Your task to perform on an android device: turn off translation in the chrome app Image 0: 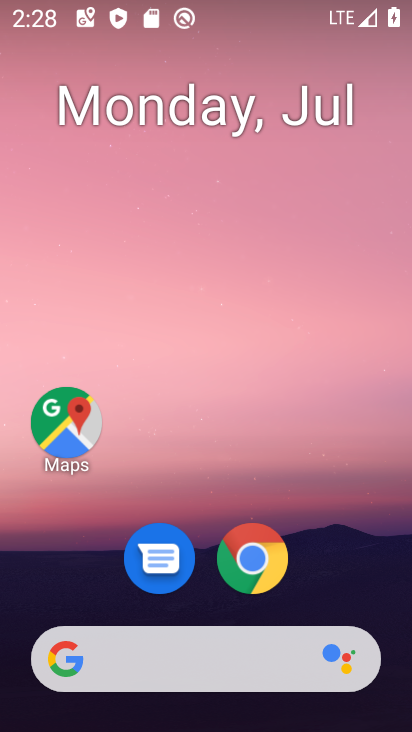
Step 0: press home button
Your task to perform on an android device: turn off translation in the chrome app Image 1: 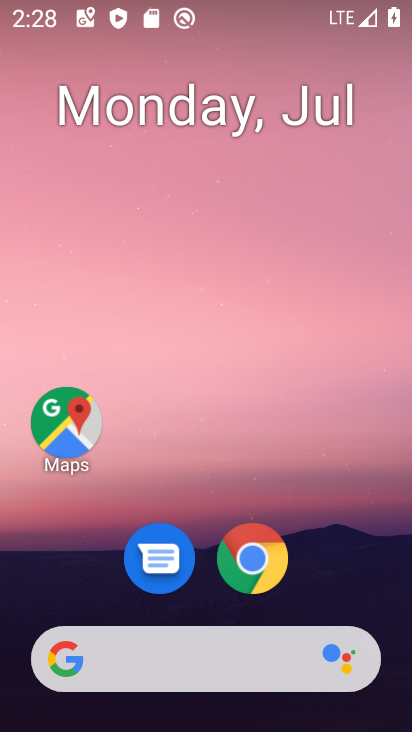
Step 1: drag from (352, 529) to (325, 98)
Your task to perform on an android device: turn off translation in the chrome app Image 2: 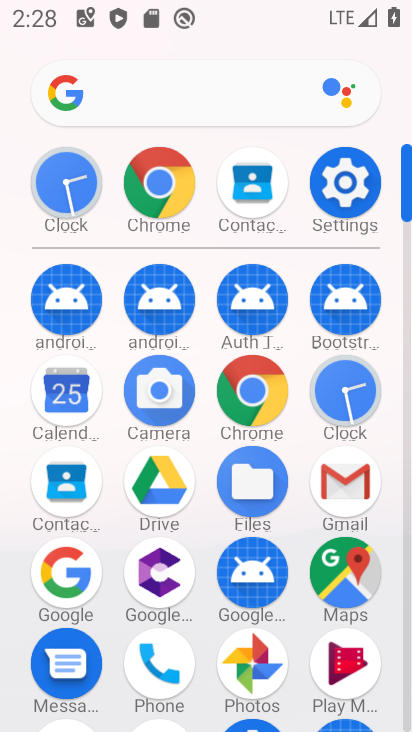
Step 2: click (257, 394)
Your task to perform on an android device: turn off translation in the chrome app Image 3: 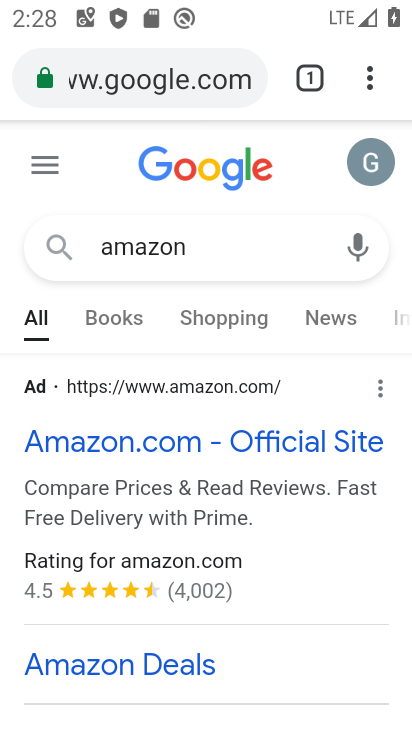
Step 3: click (369, 83)
Your task to perform on an android device: turn off translation in the chrome app Image 4: 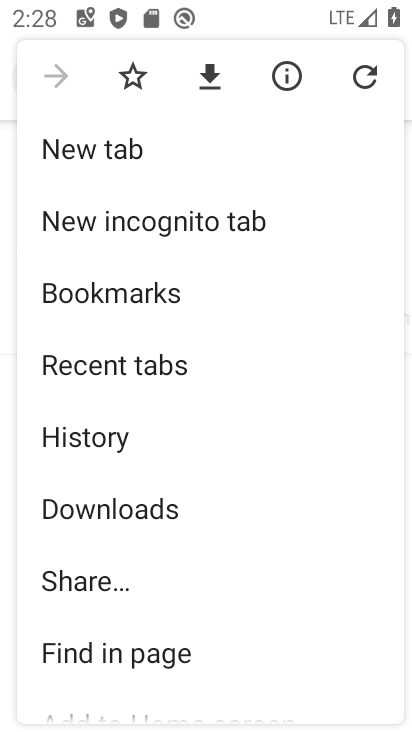
Step 4: drag from (300, 424) to (301, 348)
Your task to perform on an android device: turn off translation in the chrome app Image 5: 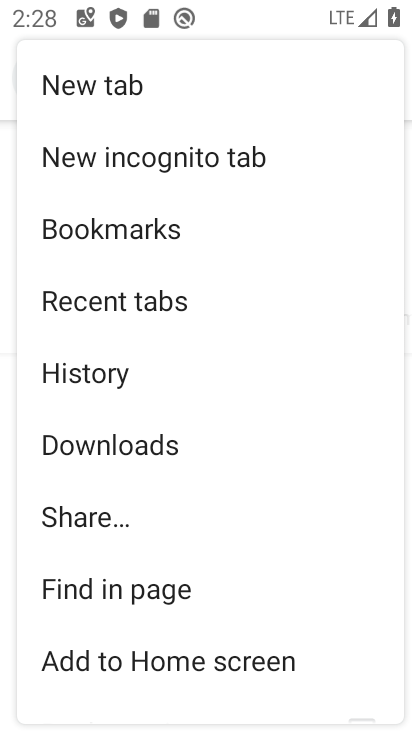
Step 5: drag from (268, 495) to (265, 306)
Your task to perform on an android device: turn off translation in the chrome app Image 6: 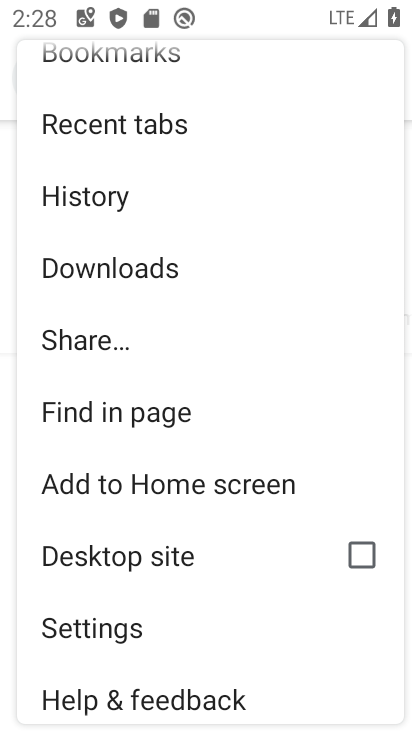
Step 6: drag from (252, 583) to (266, 403)
Your task to perform on an android device: turn off translation in the chrome app Image 7: 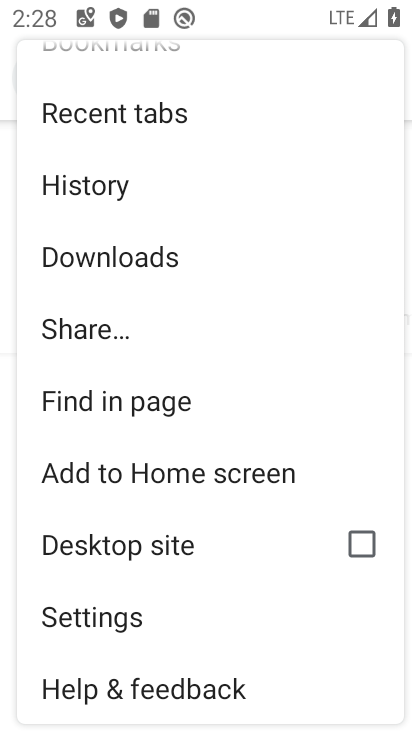
Step 7: click (206, 611)
Your task to perform on an android device: turn off translation in the chrome app Image 8: 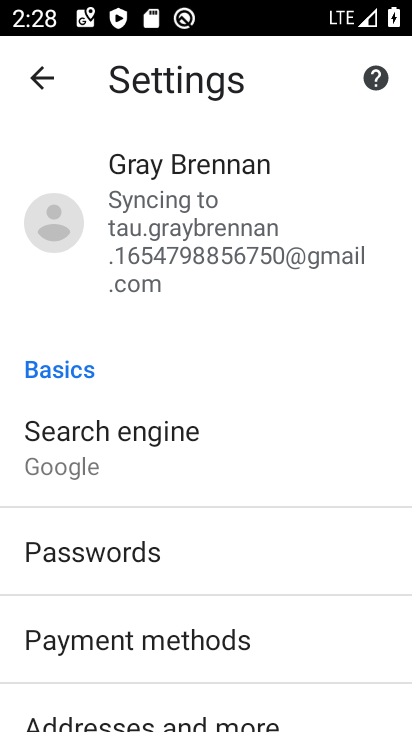
Step 8: drag from (330, 618) to (339, 453)
Your task to perform on an android device: turn off translation in the chrome app Image 9: 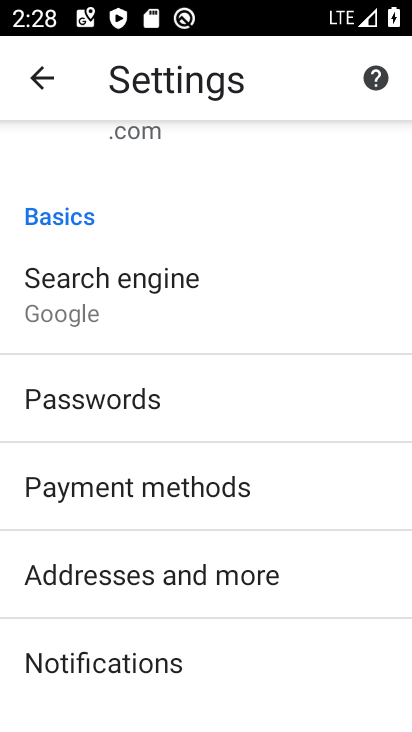
Step 9: drag from (324, 615) to (327, 490)
Your task to perform on an android device: turn off translation in the chrome app Image 10: 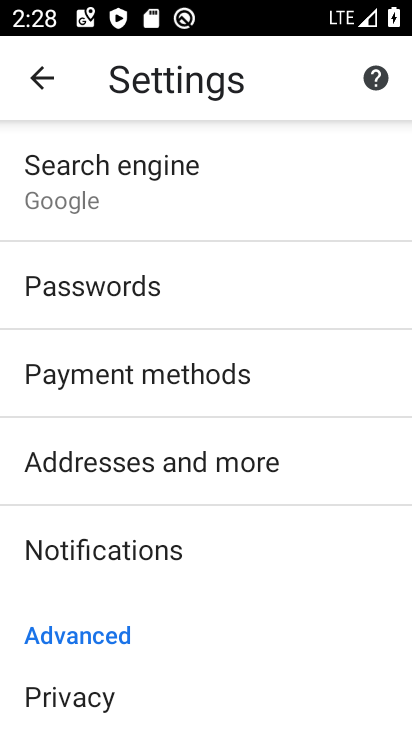
Step 10: drag from (313, 607) to (306, 460)
Your task to perform on an android device: turn off translation in the chrome app Image 11: 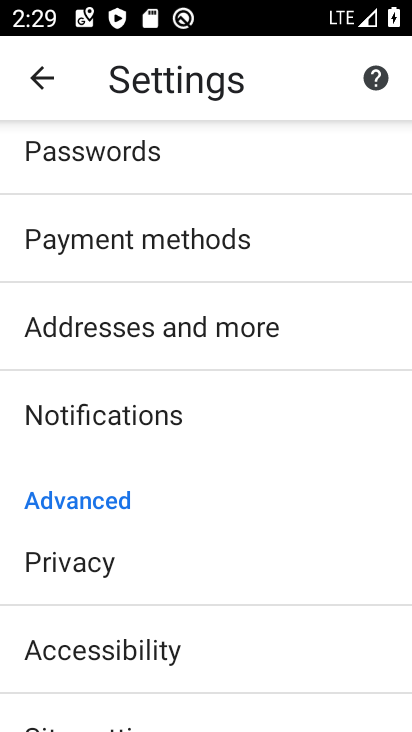
Step 11: drag from (302, 561) to (298, 408)
Your task to perform on an android device: turn off translation in the chrome app Image 12: 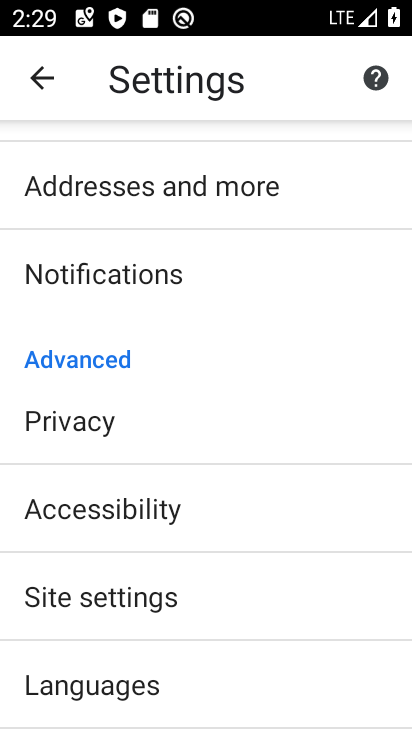
Step 12: drag from (277, 532) to (267, 372)
Your task to perform on an android device: turn off translation in the chrome app Image 13: 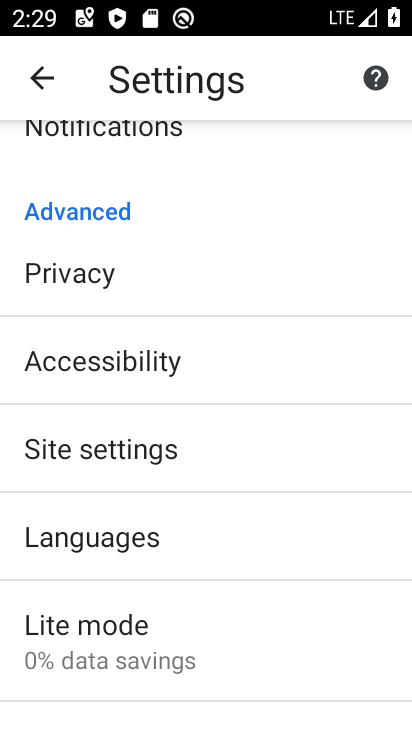
Step 13: drag from (279, 571) to (281, 388)
Your task to perform on an android device: turn off translation in the chrome app Image 14: 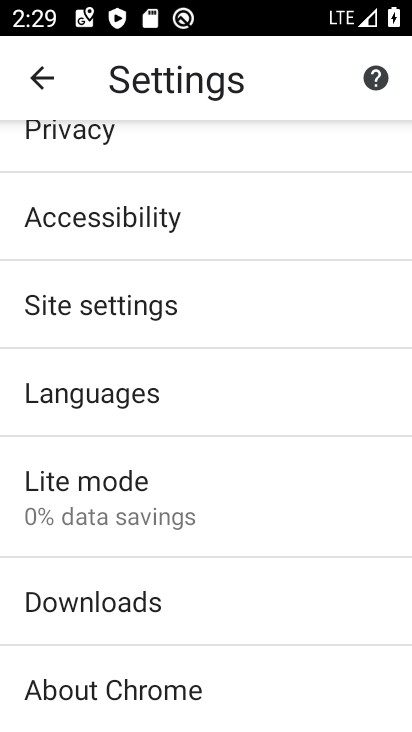
Step 14: click (222, 403)
Your task to perform on an android device: turn off translation in the chrome app Image 15: 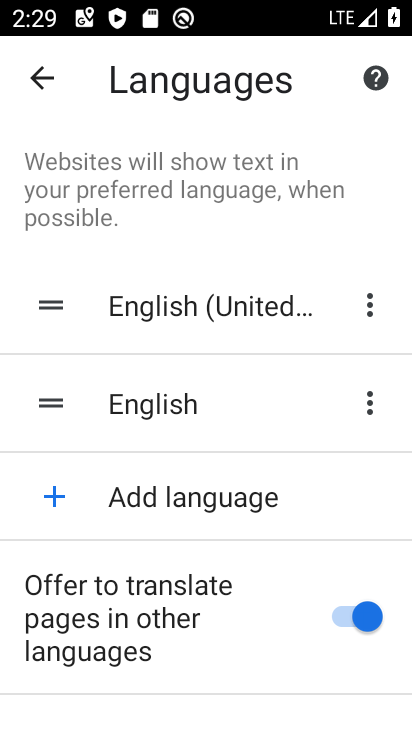
Step 15: click (366, 623)
Your task to perform on an android device: turn off translation in the chrome app Image 16: 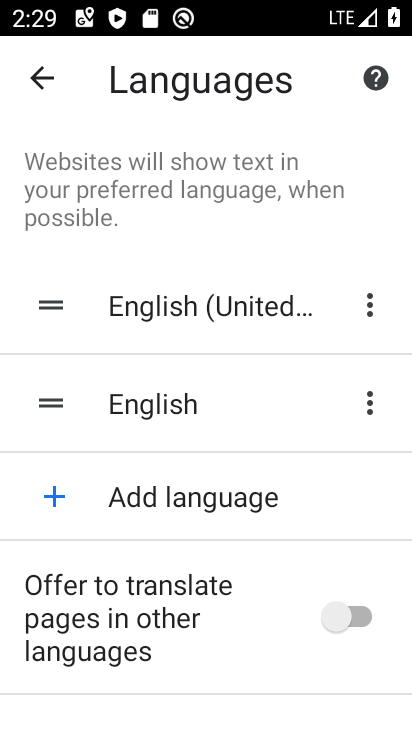
Step 16: task complete